Your task to perform on an android device: Open notification settings Image 0: 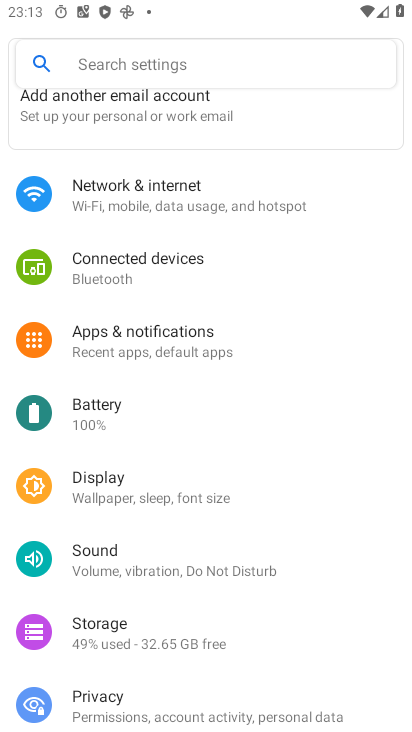
Step 0: click (161, 344)
Your task to perform on an android device: Open notification settings Image 1: 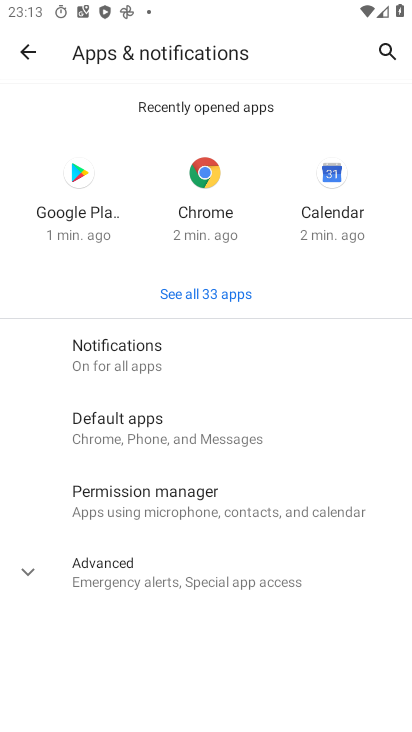
Step 1: click (182, 362)
Your task to perform on an android device: Open notification settings Image 2: 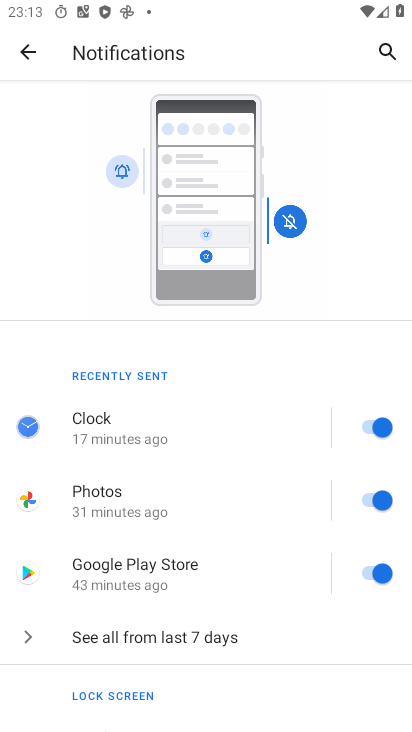
Step 2: drag from (206, 387) to (237, 188)
Your task to perform on an android device: Open notification settings Image 3: 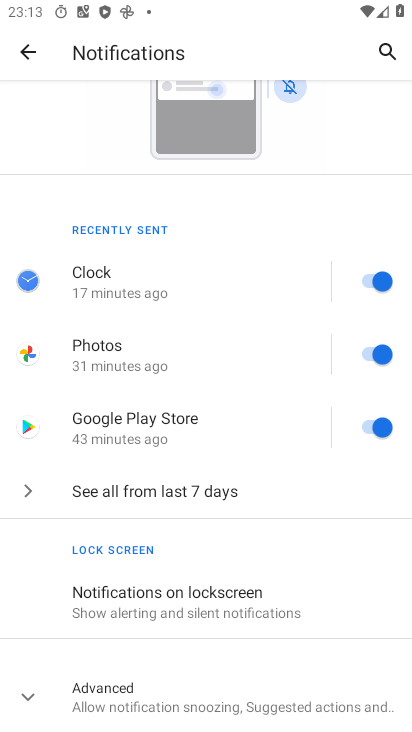
Step 3: click (115, 696)
Your task to perform on an android device: Open notification settings Image 4: 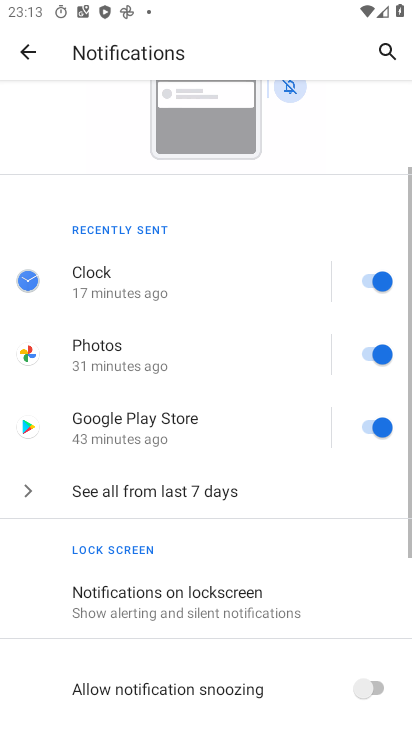
Step 4: drag from (272, 637) to (346, 177)
Your task to perform on an android device: Open notification settings Image 5: 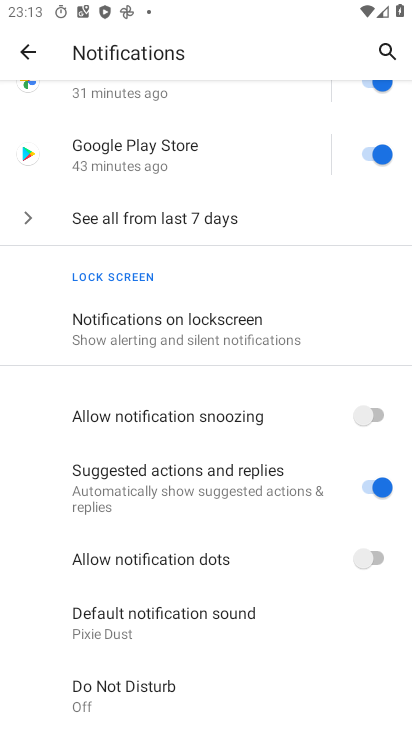
Step 5: click (171, 330)
Your task to perform on an android device: Open notification settings Image 6: 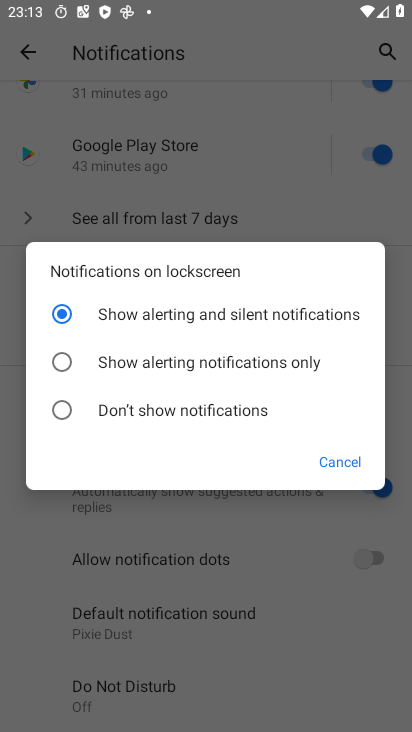
Step 6: click (66, 412)
Your task to perform on an android device: Open notification settings Image 7: 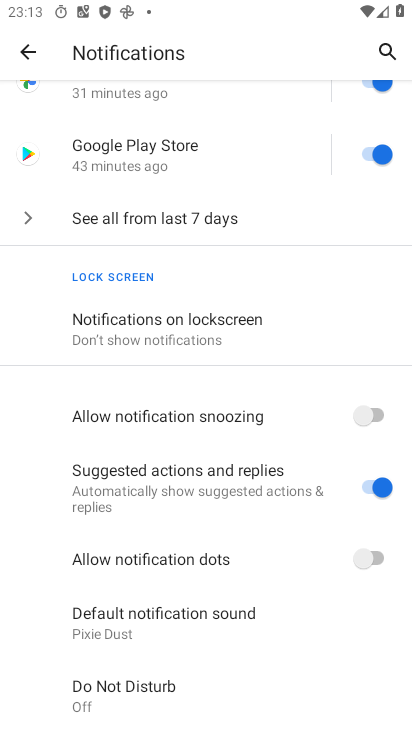
Step 7: drag from (176, 636) to (152, 341)
Your task to perform on an android device: Open notification settings Image 8: 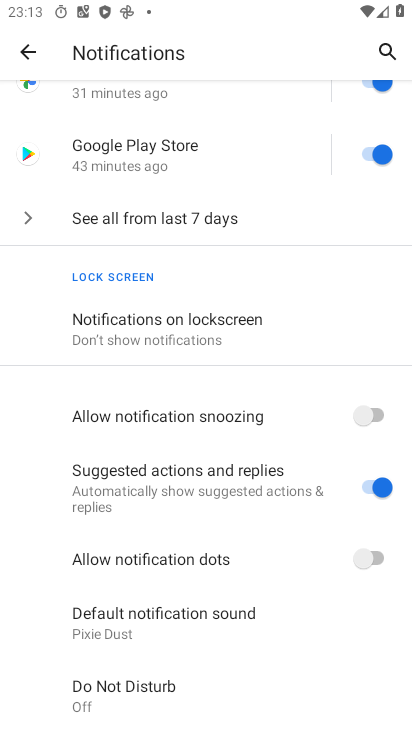
Step 8: click (374, 417)
Your task to perform on an android device: Open notification settings Image 9: 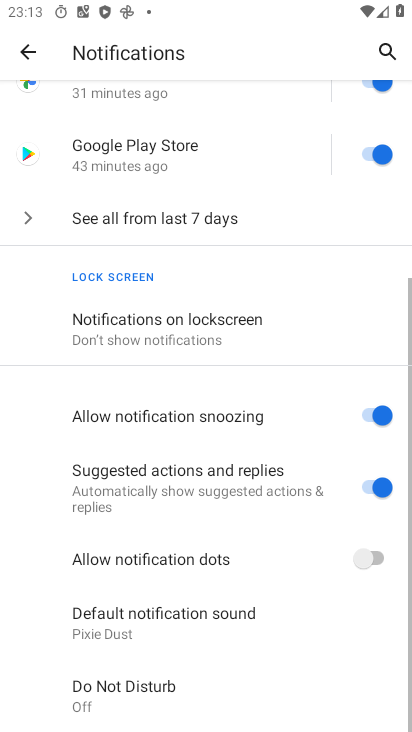
Step 9: click (375, 489)
Your task to perform on an android device: Open notification settings Image 10: 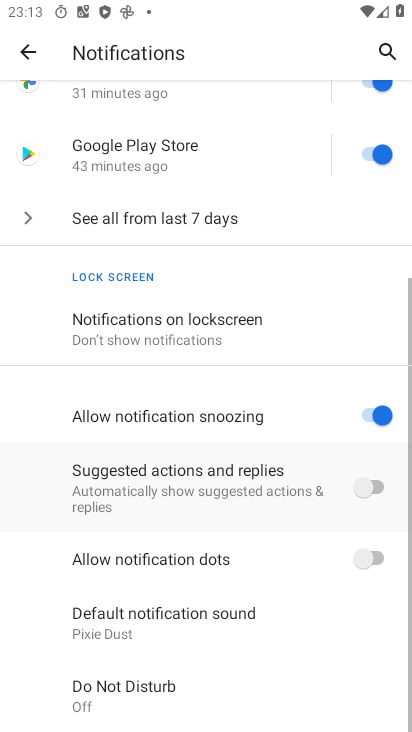
Step 10: click (364, 558)
Your task to perform on an android device: Open notification settings Image 11: 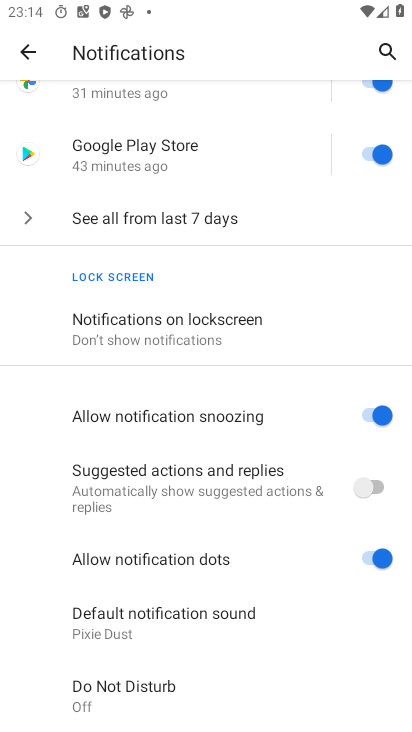
Step 11: task complete